Your task to perform on an android device: toggle improve location accuracy Image 0: 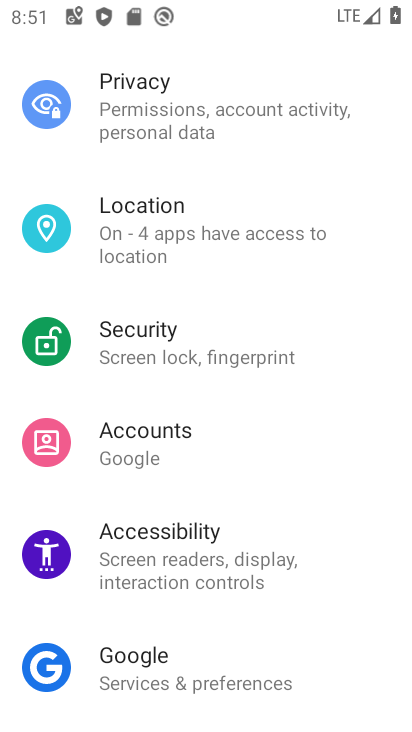
Step 0: drag from (224, 195) to (219, 620)
Your task to perform on an android device: toggle improve location accuracy Image 1: 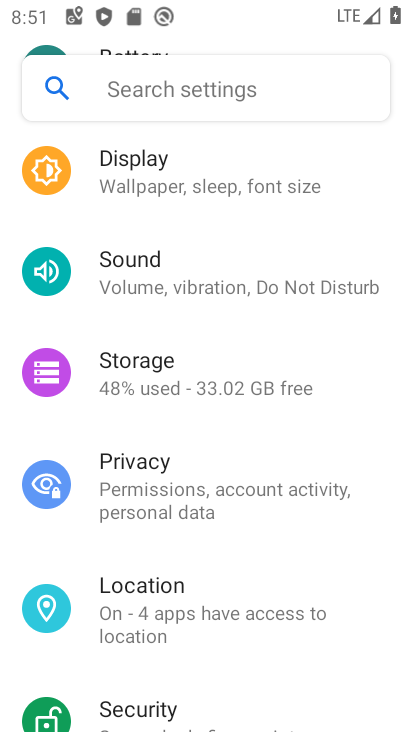
Step 1: drag from (237, 228) to (221, 566)
Your task to perform on an android device: toggle improve location accuracy Image 2: 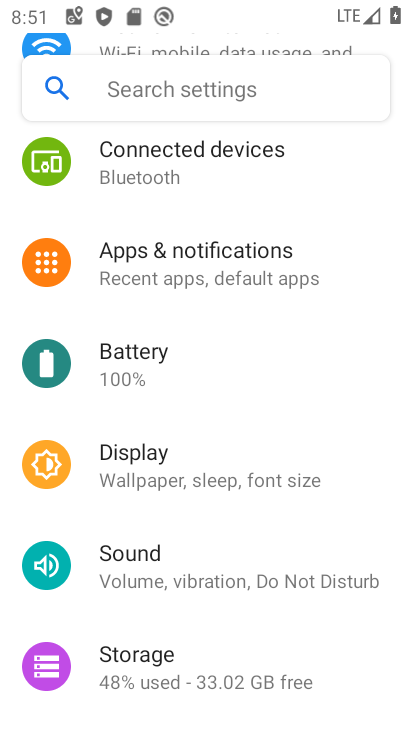
Step 2: drag from (244, 285) to (239, 563)
Your task to perform on an android device: toggle improve location accuracy Image 3: 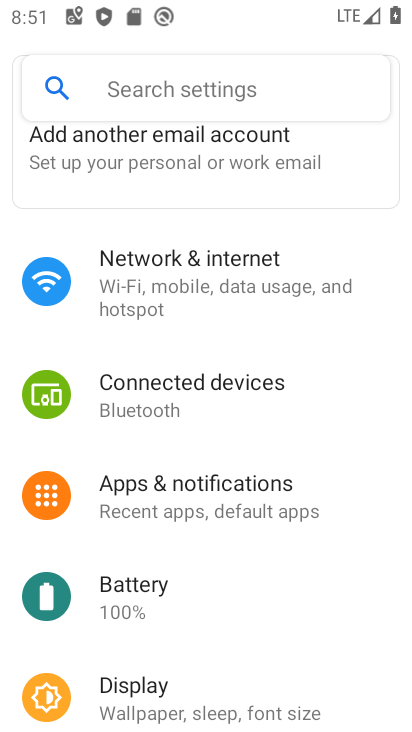
Step 3: drag from (209, 301) to (199, 484)
Your task to perform on an android device: toggle improve location accuracy Image 4: 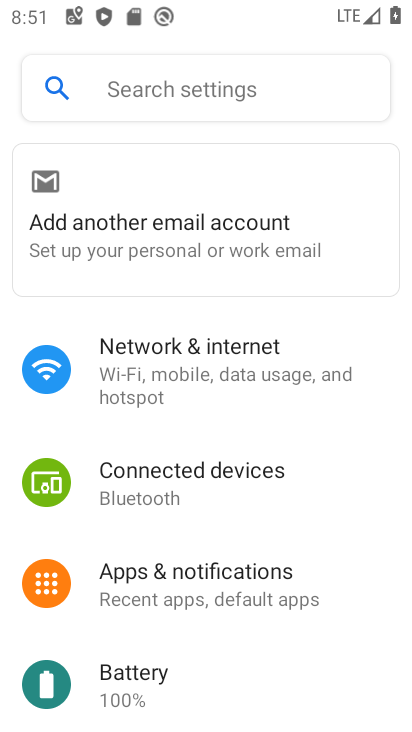
Step 4: drag from (217, 645) to (240, 246)
Your task to perform on an android device: toggle improve location accuracy Image 5: 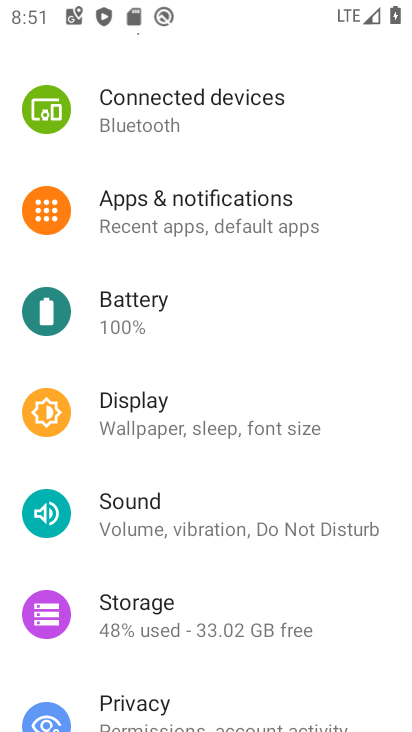
Step 5: drag from (165, 678) to (178, 254)
Your task to perform on an android device: toggle improve location accuracy Image 6: 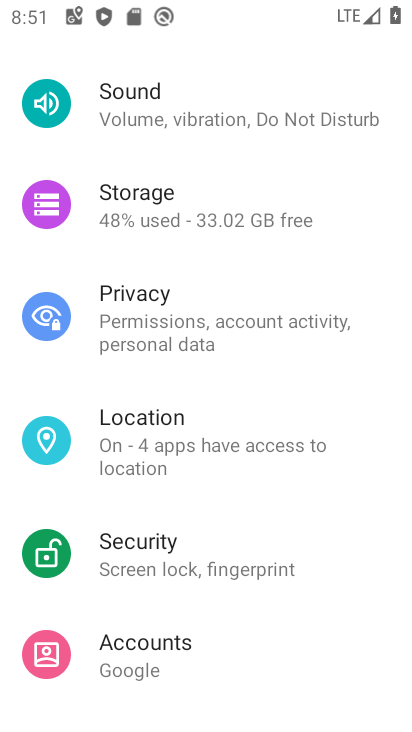
Step 6: click (139, 427)
Your task to perform on an android device: toggle improve location accuracy Image 7: 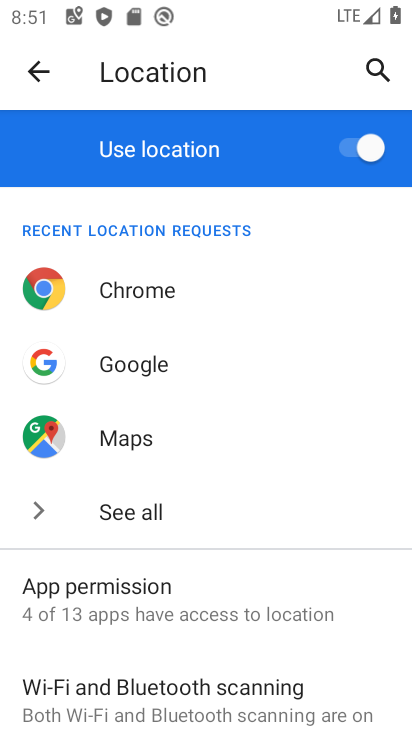
Step 7: drag from (237, 663) to (219, 267)
Your task to perform on an android device: toggle improve location accuracy Image 8: 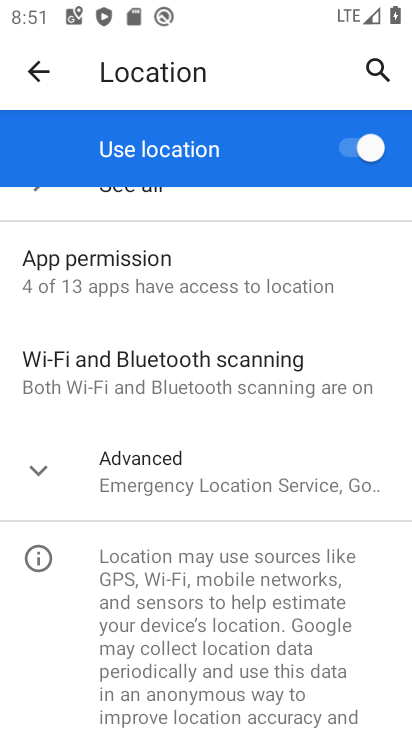
Step 8: click (140, 483)
Your task to perform on an android device: toggle improve location accuracy Image 9: 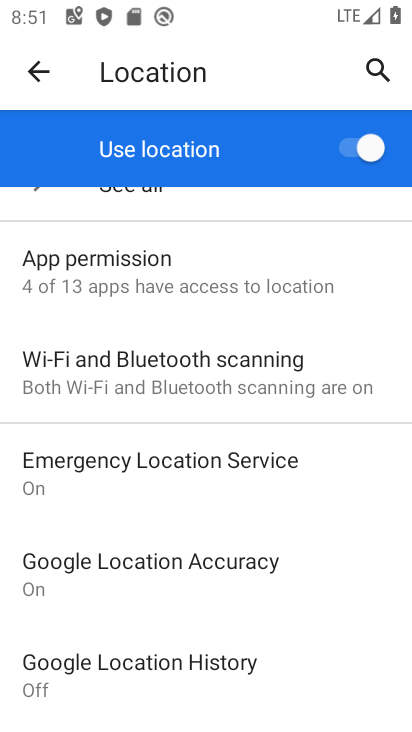
Step 9: click (177, 562)
Your task to perform on an android device: toggle improve location accuracy Image 10: 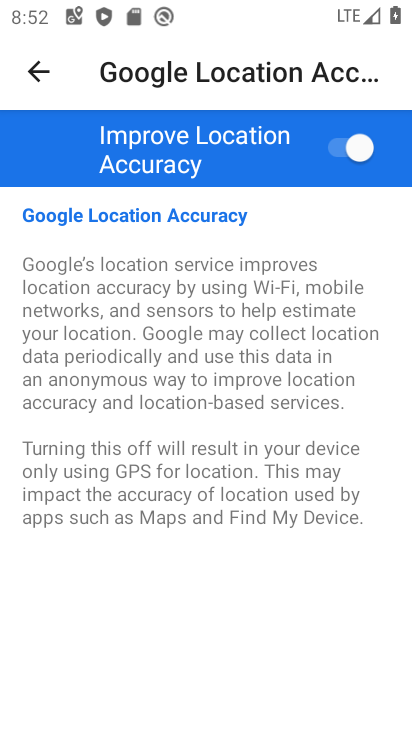
Step 10: click (338, 152)
Your task to perform on an android device: toggle improve location accuracy Image 11: 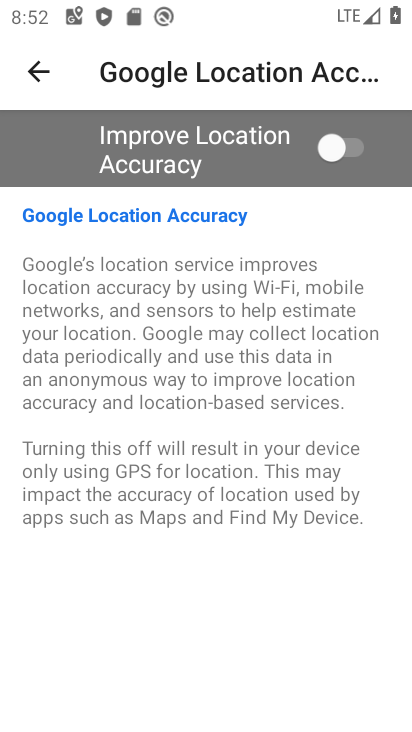
Step 11: task complete